Your task to perform on an android device: Check the weather Image 0: 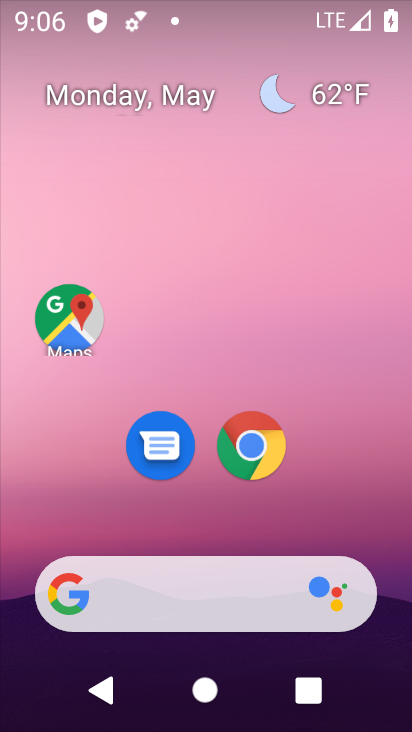
Step 0: drag from (404, 624) to (304, 72)
Your task to perform on an android device: Check the weather Image 1: 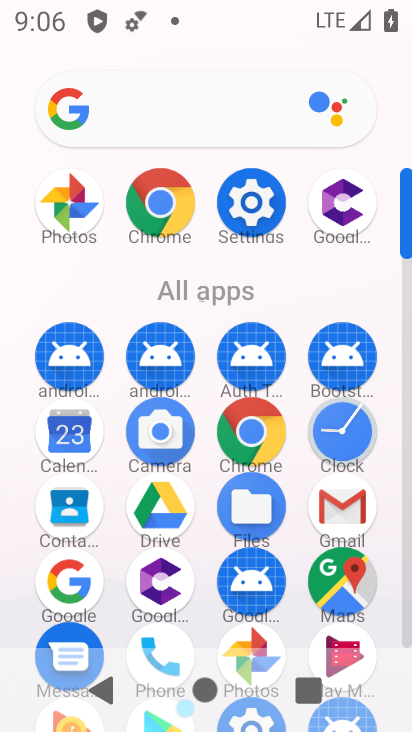
Step 1: click (65, 597)
Your task to perform on an android device: Check the weather Image 2: 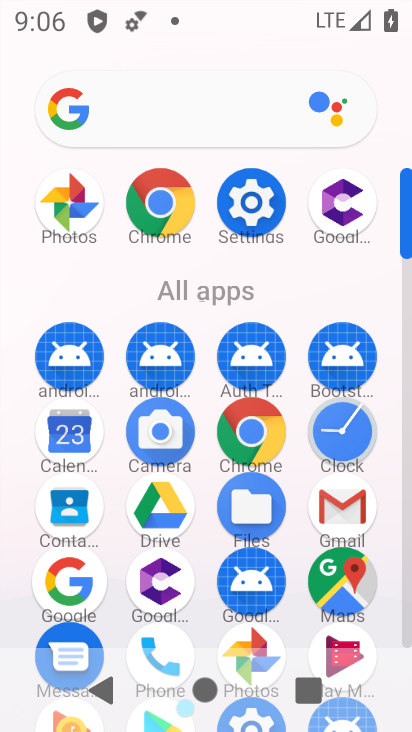
Step 2: click (76, 575)
Your task to perform on an android device: Check the weather Image 3: 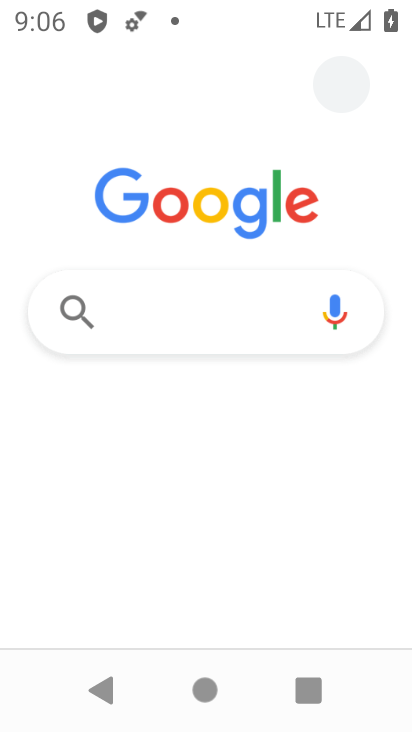
Step 3: click (172, 319)
Your task to perform on an android device: Check the weather Image 4: 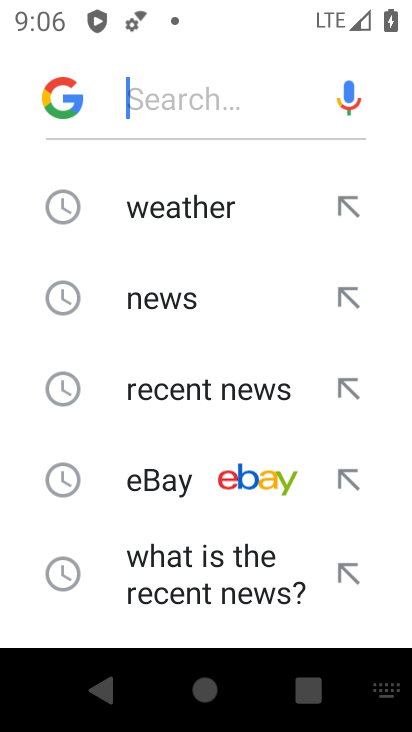
Step 4: click (157, 211)
Your task to perform on an android device: Check the weather Image 5: 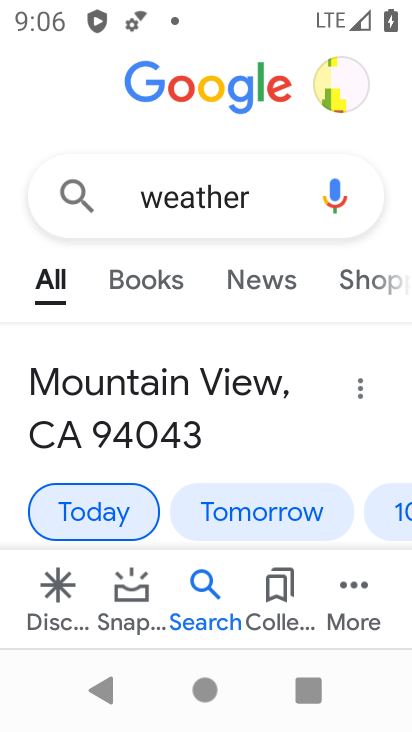
Step 5: task complete